Your task to perform on an android device: turn on wifi Image 0: 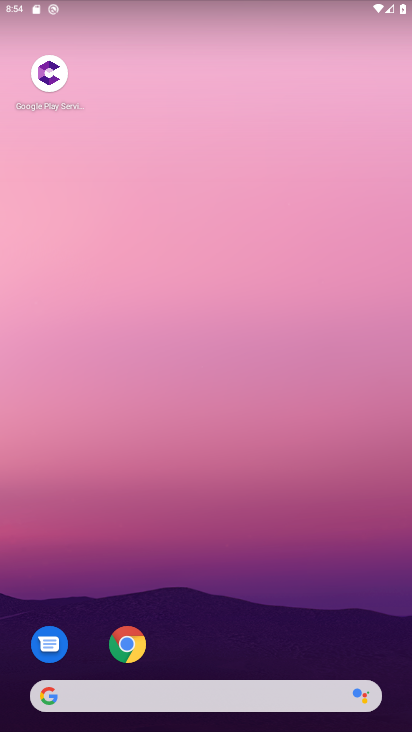
Step 0: drag from (328, 2) to (278, 471)
Your task to perform on an android device: turn on wifi Image 1: 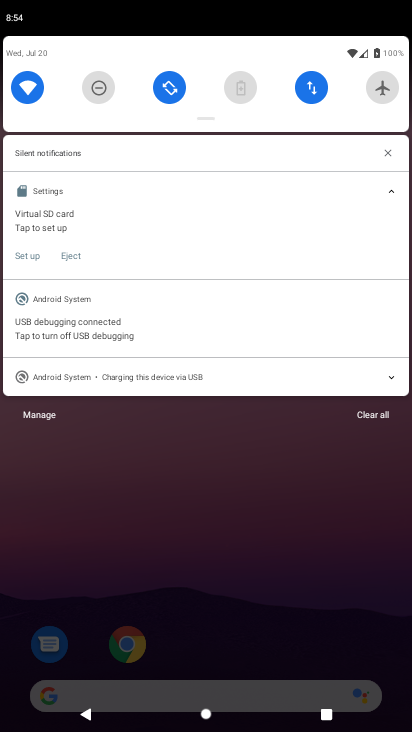
Step 1: task complete